Your task to perform on an android device: turn off priority inbox in the gmail app Image 0: 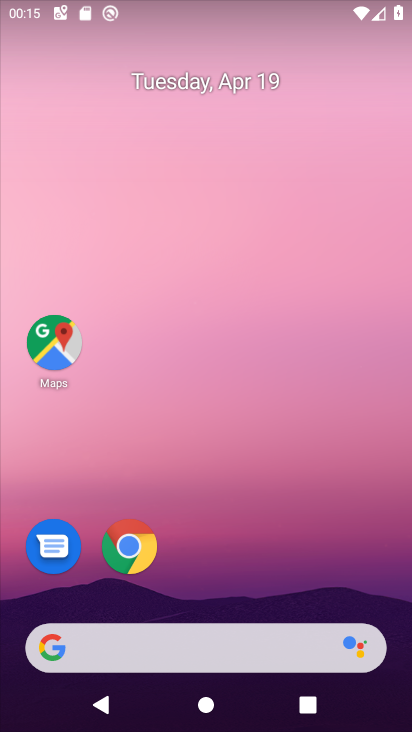
Step 0: drag from (238, 532) to (260, 247)
Your task to perform on an android device: turn off priority inbox in the gmail app Image 1: 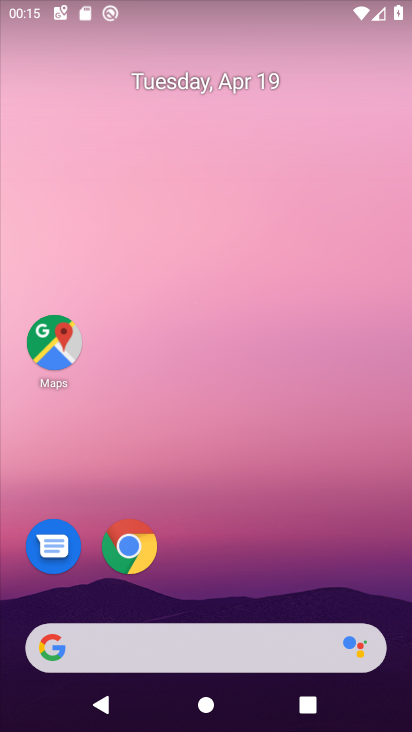
Step 1: drag from (222, 586) to (310, 47)
Your task to perform on an android device: turn off priority inbox in the gmail app Image 2: 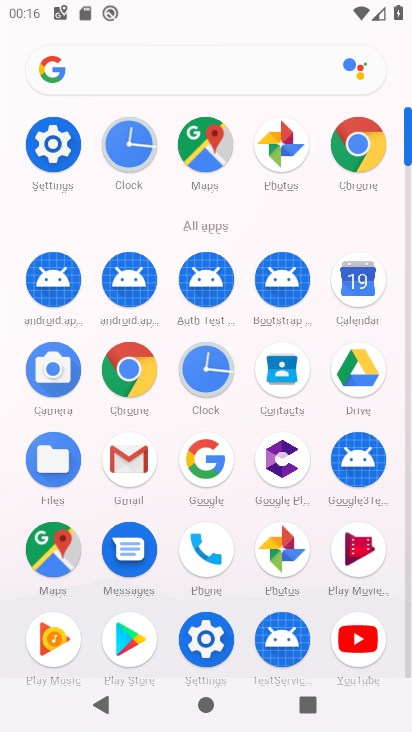
Step 2: click (129, 457)
Your task to perform on an android device: turn off priority inbox in the gmail app Image 3: 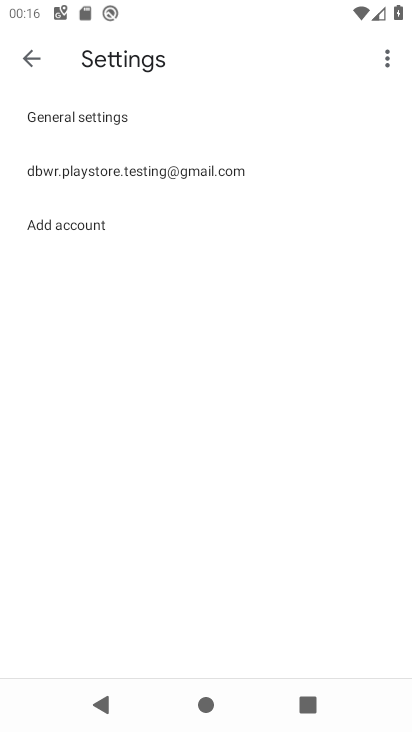
Step 3: click (118, 168)
Your task to perform on an android device: turn off priority inbox in the gmail app Image 4: 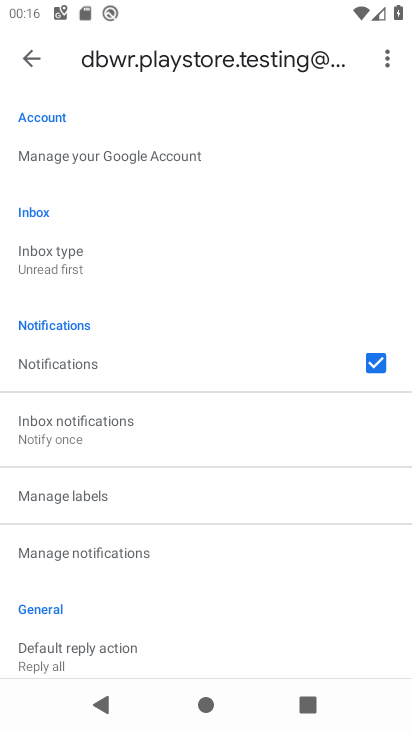
Step 4: click (70, 259)
Your task to perform on an android device: turn off priority inbox in the gmail app Image 5: 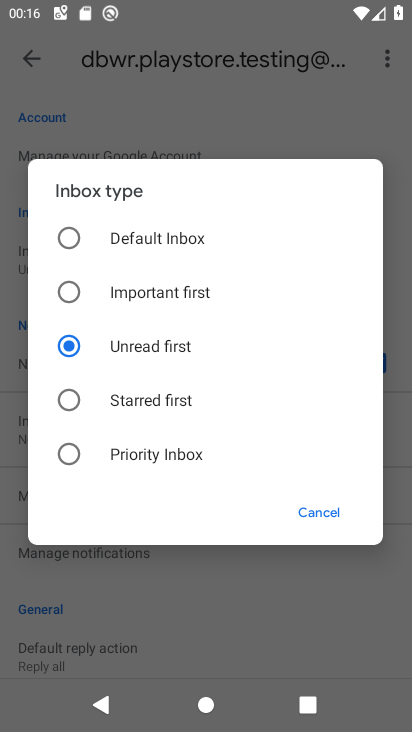
Step 5: click (71, 230)
Your task to perform on an android device: turn off priority inbox in the gmail app Image 6: 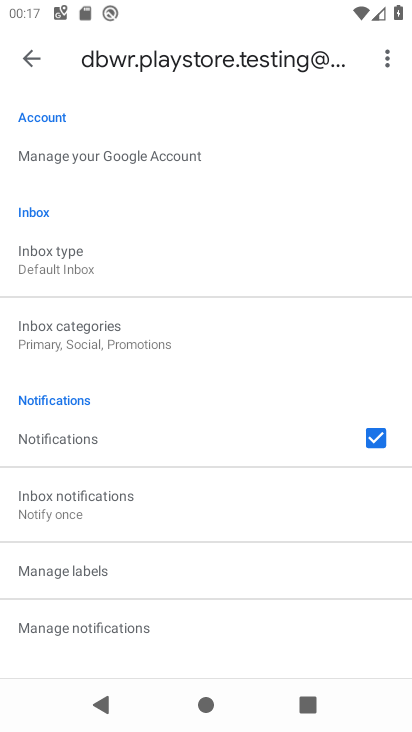
Step 6: task complete